Your task to perform on an android device: Go to calendar. Show me events next week Image 0: 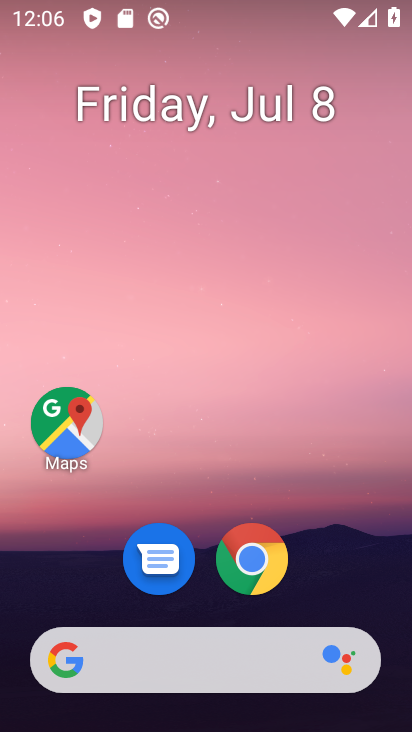
Step 0: drag from (227, 606) to (169, 25)
Your task to perform on an android device: Go to calendar. Show me events next week Image 1: 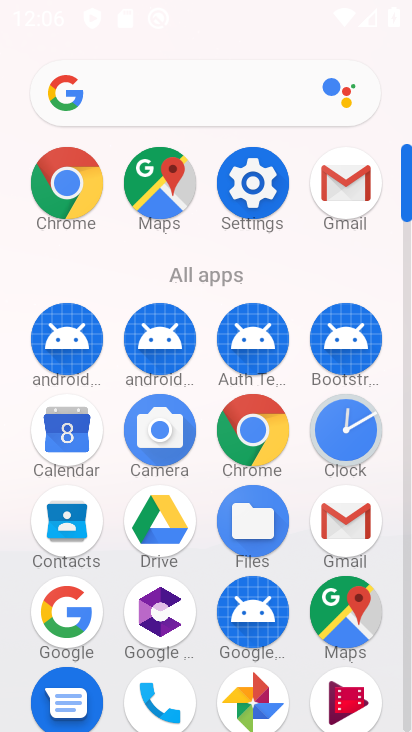
Step 1: click (50, 415)
Your task to perform on an android device: Go to calendar. Show me events next week Image 2: 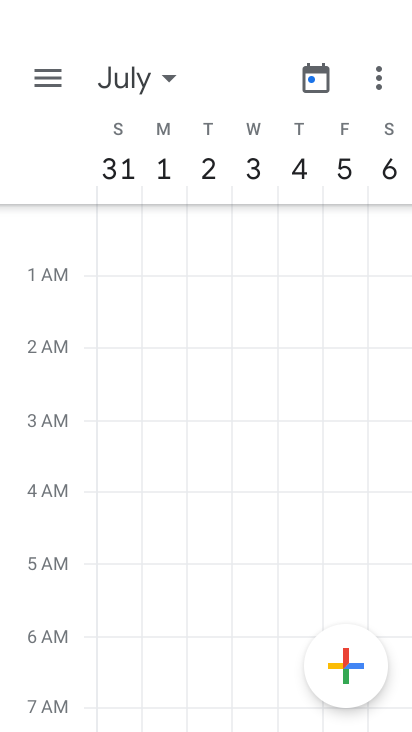
Step 2: click (311, 78)
Your task to perform on an android device: Go to calendar. Show me events next week Image 3: 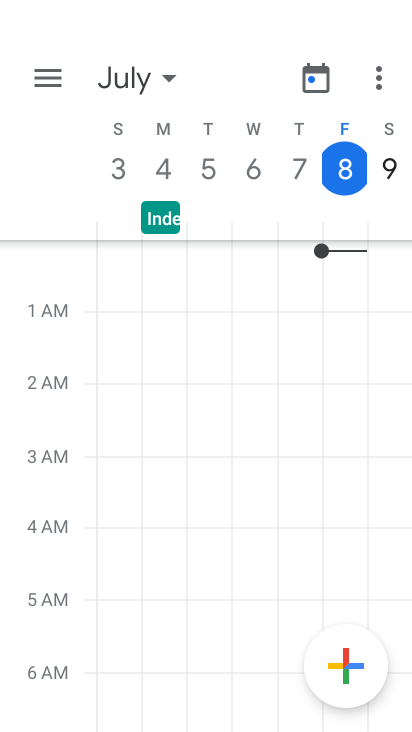
Step 3: task complete